Your task to perform on an android device: remove spam from my inbox in the gmail app Image 0: 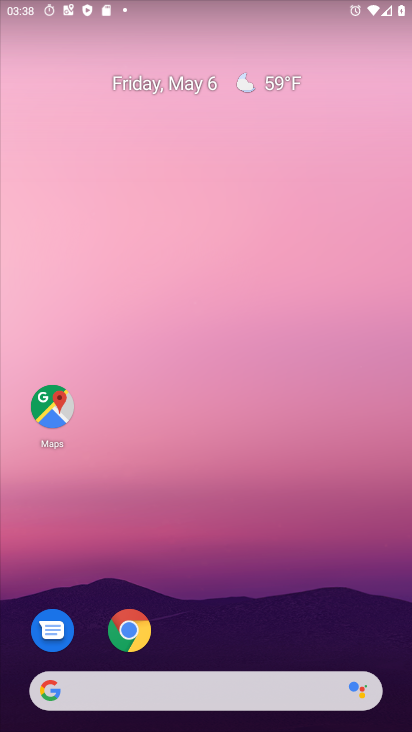
Step 0: drag from (205, 635) to (195, 248)
Your task to perform on an android device: remove spam from my inbox in the gmail app Image 1: 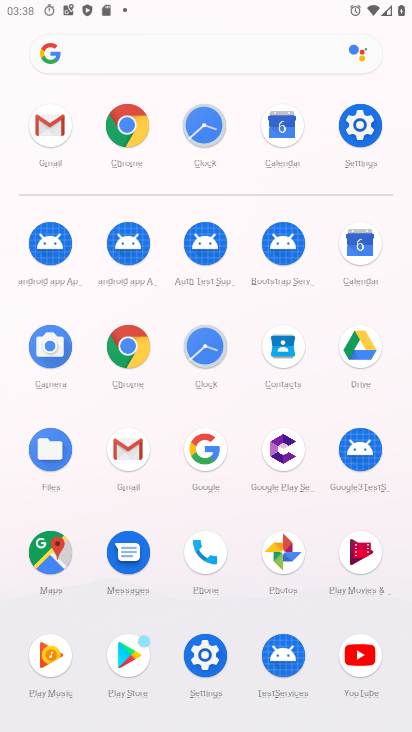
Step 1: click (142, 461)
Your task to perform on an android device: remove spam from my inbox in the gmail app Image 2: 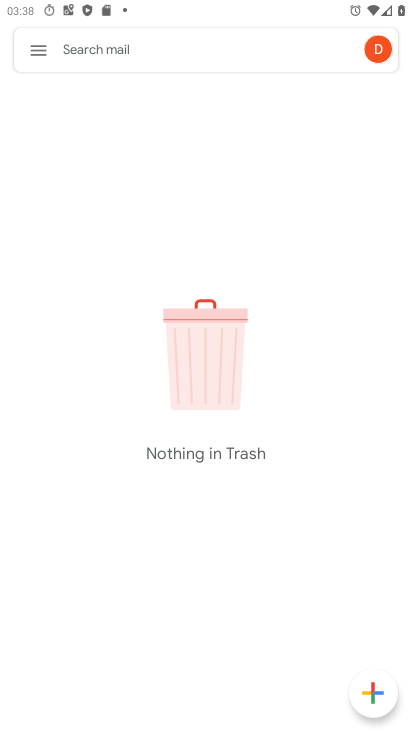
Step 2: click (31, 49)
Your task to perform on an android device: remove spam from my inbox in the gmail app Image 3: 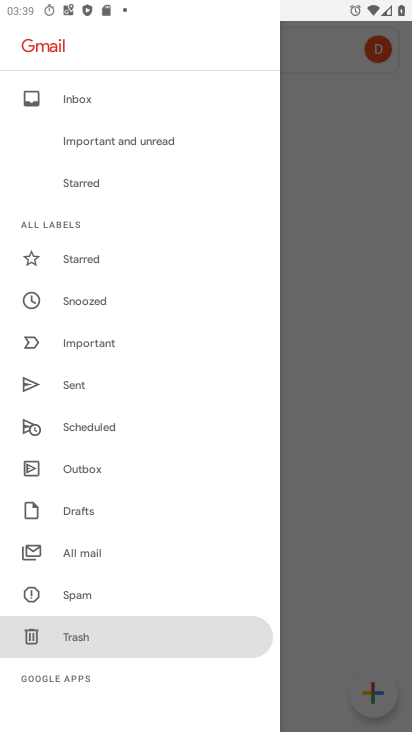
Step 3: click (94, 594)
Your task to perform on an android device: remove spam from my inbox in the gmail app Image 4: 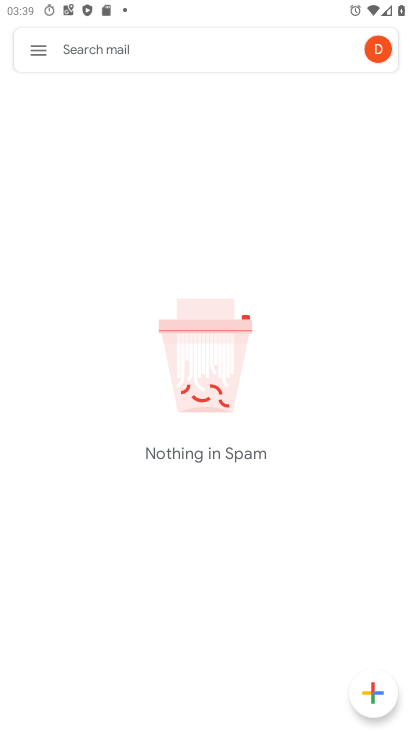
Step 4: task complete